Your task to perform on an android device: add a contact Image 0: 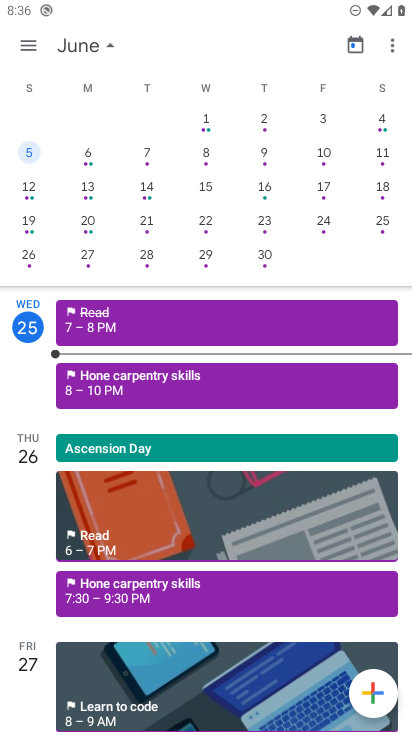
Step 0: press home button
Your task to perform on an android device: add a contact Image 1: 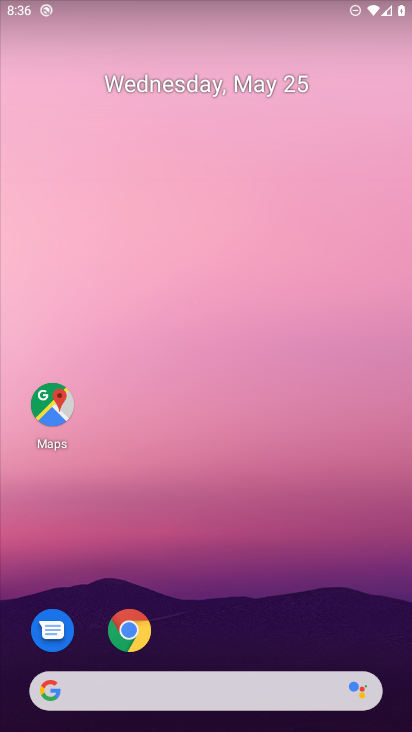
Step 1: drag from (199, 685) to (233, 301)
Your task to perform on an android device: add a contact Image 2: 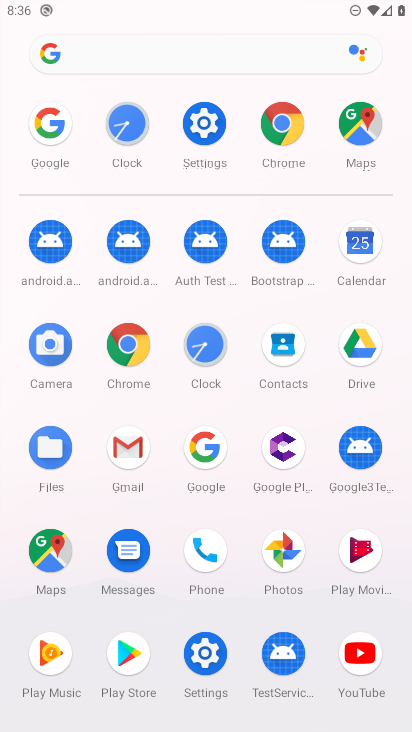
Step 2: click (291, 346)
Your task to perform on an android device: add a contact Image 3: 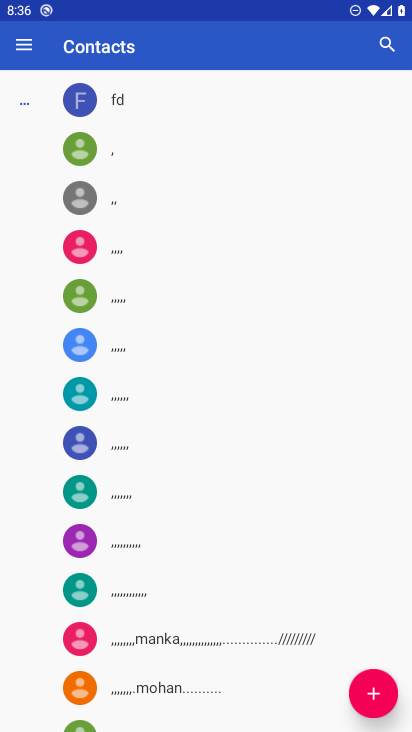
Step 3: click (381, 698)
Your task to perform on an android device: add a contact Image 4: 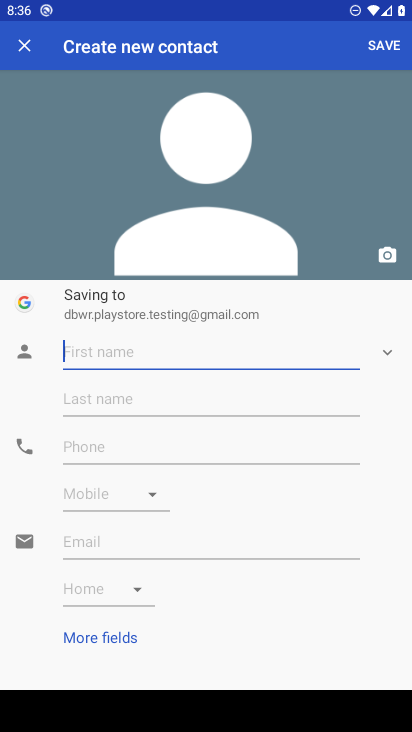
Step 4: type "jhumki"
Your task to perform on an android device: add a contact Image 5: 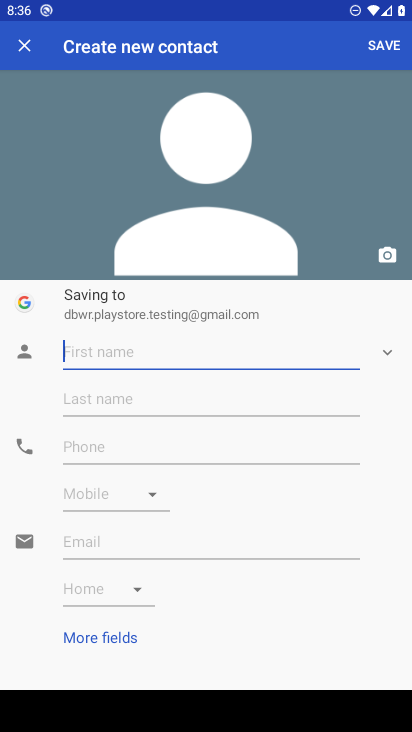
Step 5: click (125, 409)
Your task to perform on an android device: add a contact Image 6: 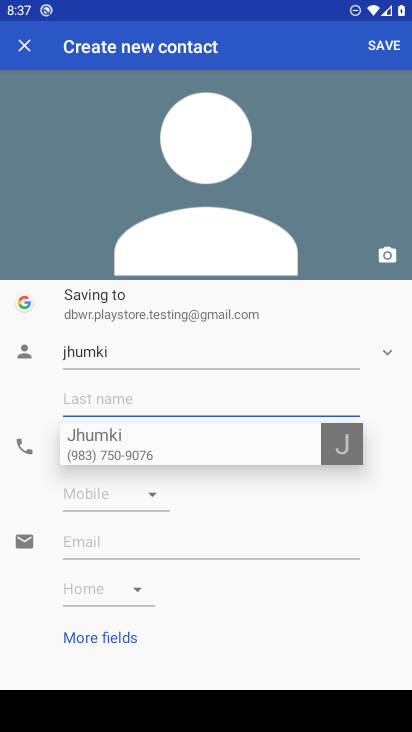
Step 6: click (121, 406)
Your task to perform on an android device: add a contact Image 7: 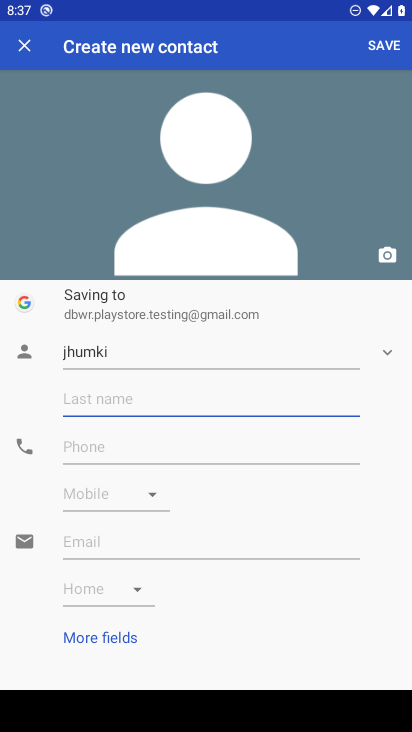
Step 7: type "bhatacharya"
Your task to perform on an android device: add a contact Image 8: 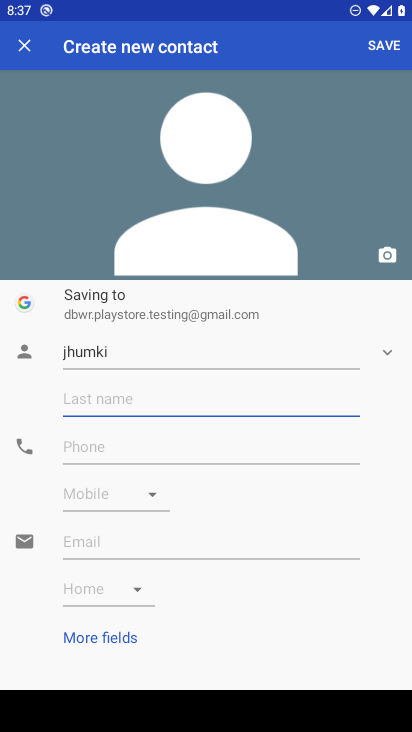
Step 8: click (94, 450)
Your task to perform on an android device: add a contact Image 9: 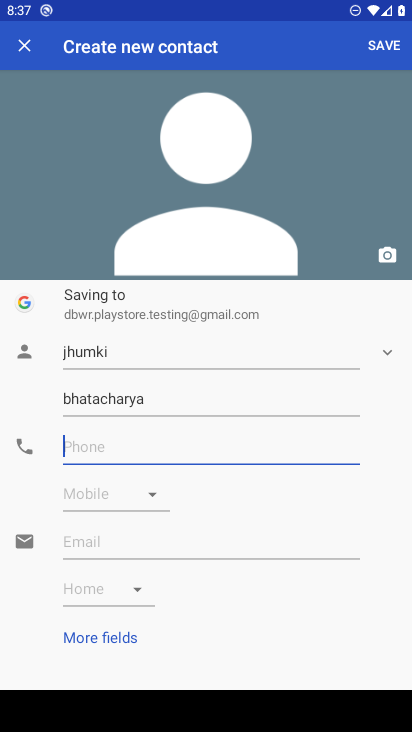
Step 9: type "6375678789"
Your task to perform on an android device: add a contact Image 10: 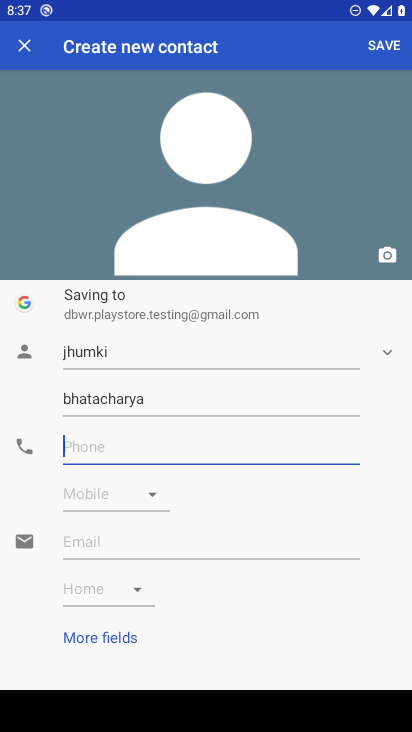
Step 10: click (398, 40)
Your task to perform on an android device: add a contact Image 11: 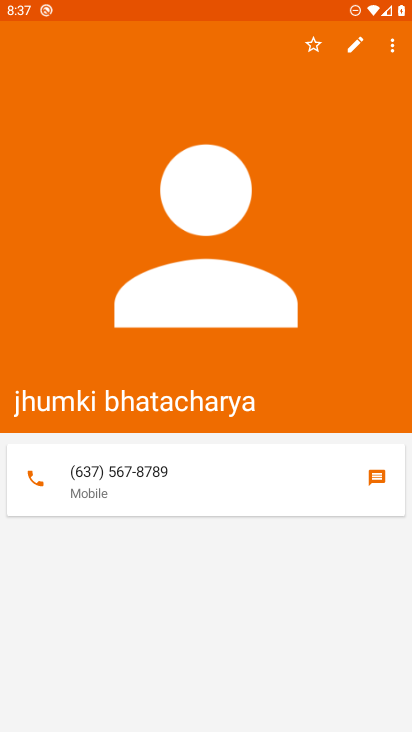
Step 11: task complete